Your task to perform on an android device: turn on notifications settings in the gmail app Image 0: 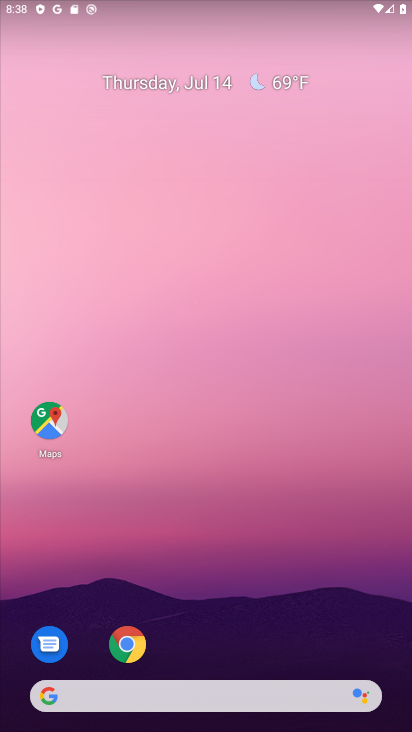
Step 0: drag from (214, 652) to (105, 62)
Your task to perform on an android device: turn on notifications settings in the gmail app Image 1: 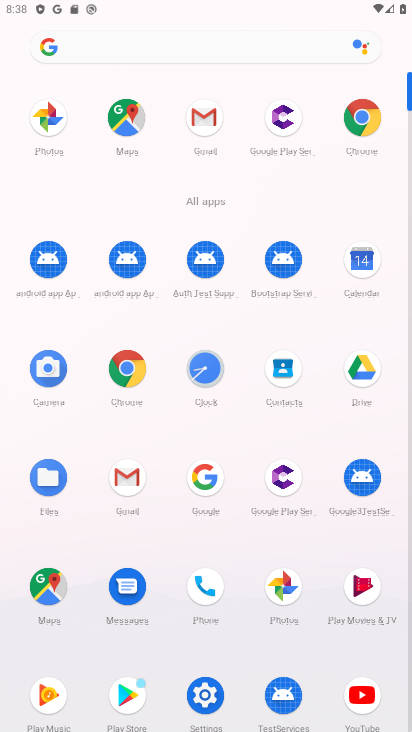
Step 1: click (207, 707)
Your task to perform on an android device: turn on notifications settings in the gmail app Image 2: 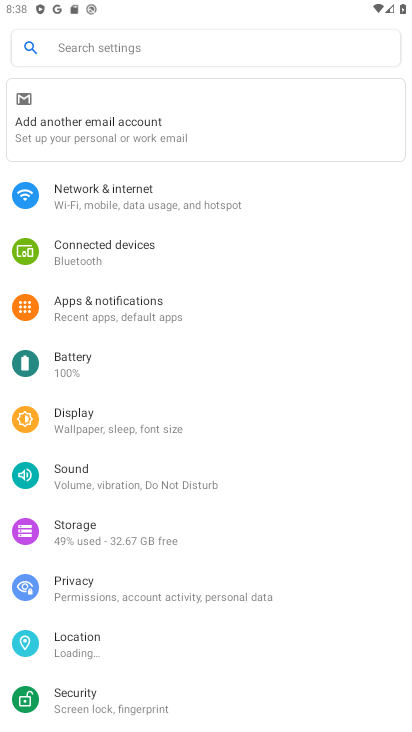
Step 2: click (194, 217)
Your task to perform on an android device: turn on notifications settings in the gmail app Image 3: 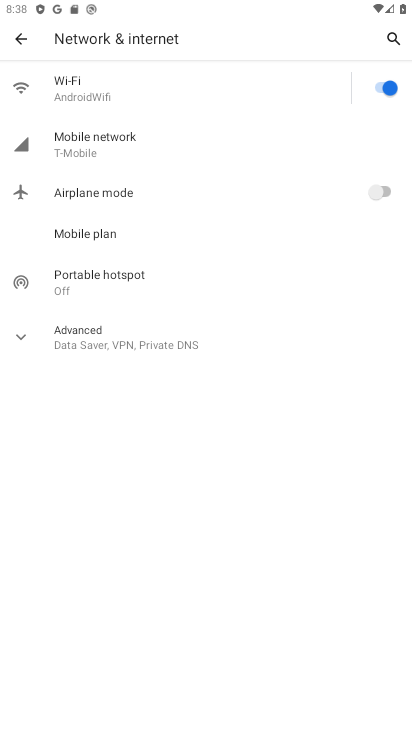
Step 3: click (246, 308)
Your task to perform on an android device: turn on notifications settings in the gmail app Image 4: 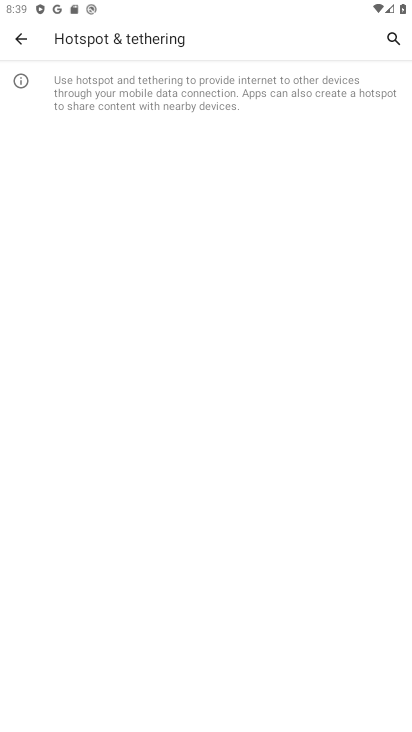
Step 4: press home button
Your task to perform on an android device: turn on notifications settings in the gmail app Image 5: 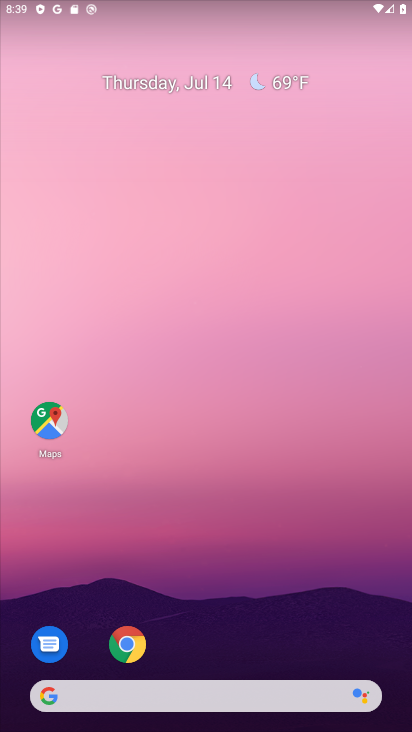
Step 5: drag from (177, 618) to (175, 142)
Your task to perform on an android device: turn on notifications settings in the gmail app Image 6: 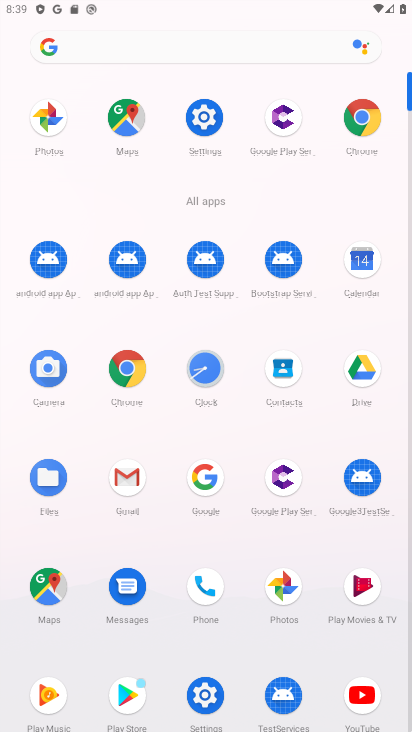
Step 6: click (199, 114)
Your task to perform on an android device: turn on notifications settings in the gmail app Image 7: 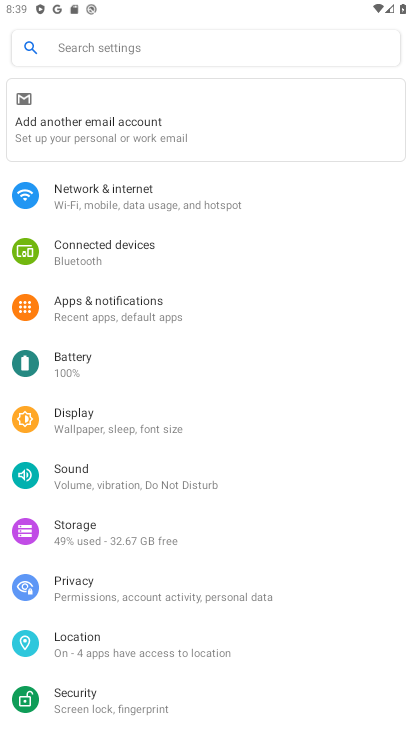
Step 7: click (203, 321)
Your task to perform on an android device: turn on notifications settings in the gmail app Image 8: 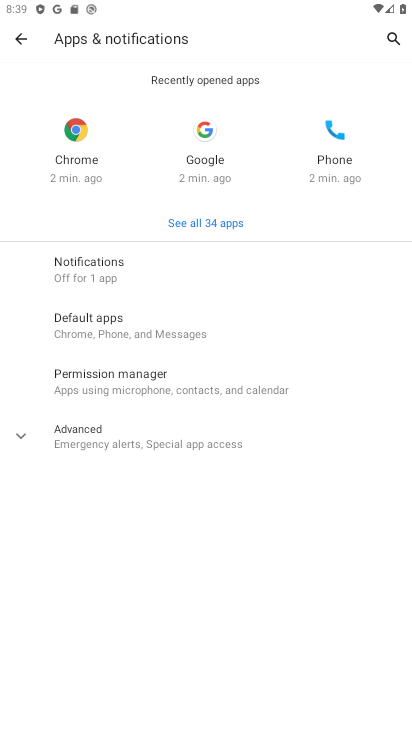
Step 8: click (244, 225)
Your task to perform on an android device: turn on notifications settings in the gmail app Image 9: 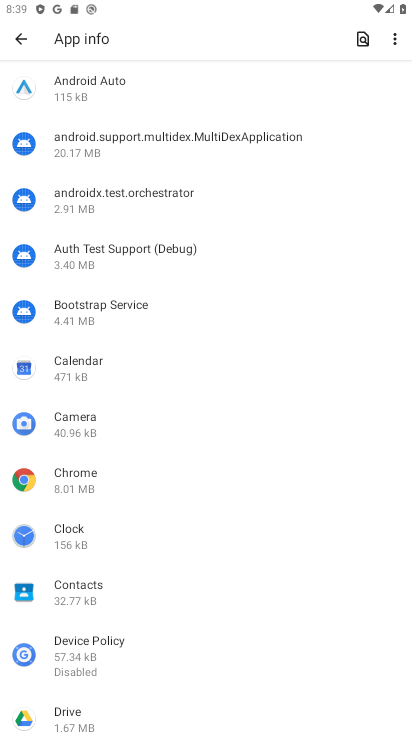
Step 9: drag from (222, 659) to (184, 244)
Your task to perform on an android device: turn on notifications settings in the gmail app Image 10: 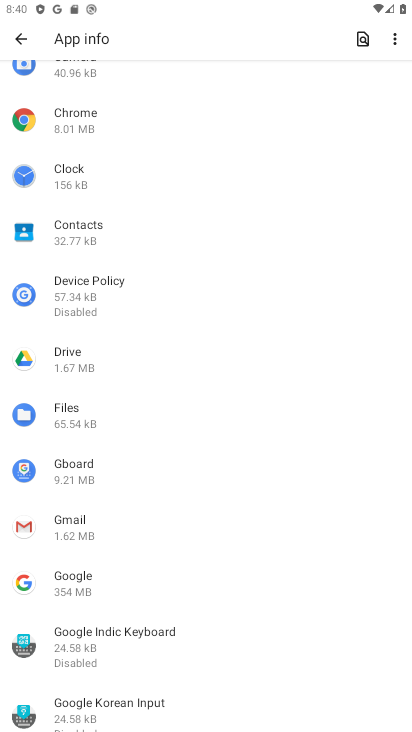
Step 10: click (56, 523)
Your task to perform on an android device: turn on notifications settings in the gmail app Image 11: 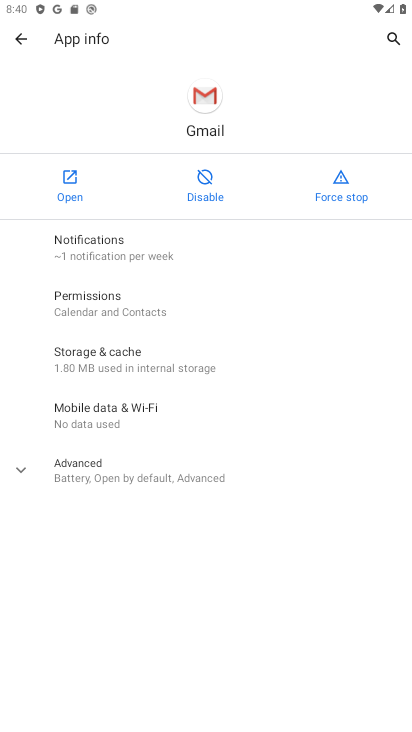
Step 11: click (202, 261)
Your task to perform on an android device: turn on notifications settings in the gmail app Image 12: 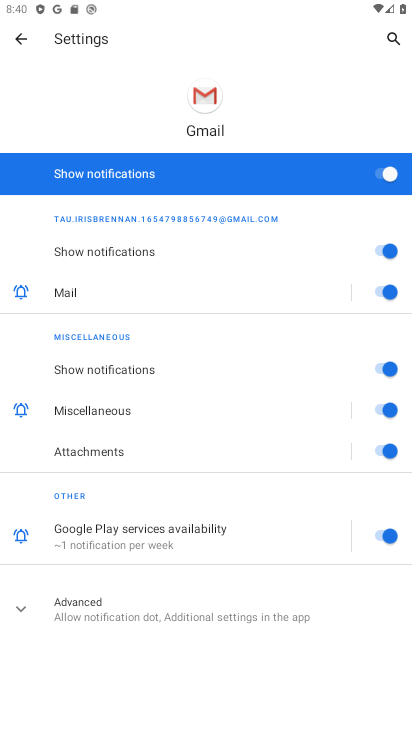
Step 12: task complete